Your task to perform on an android device: visit the assistant section in the google photos Image 0: 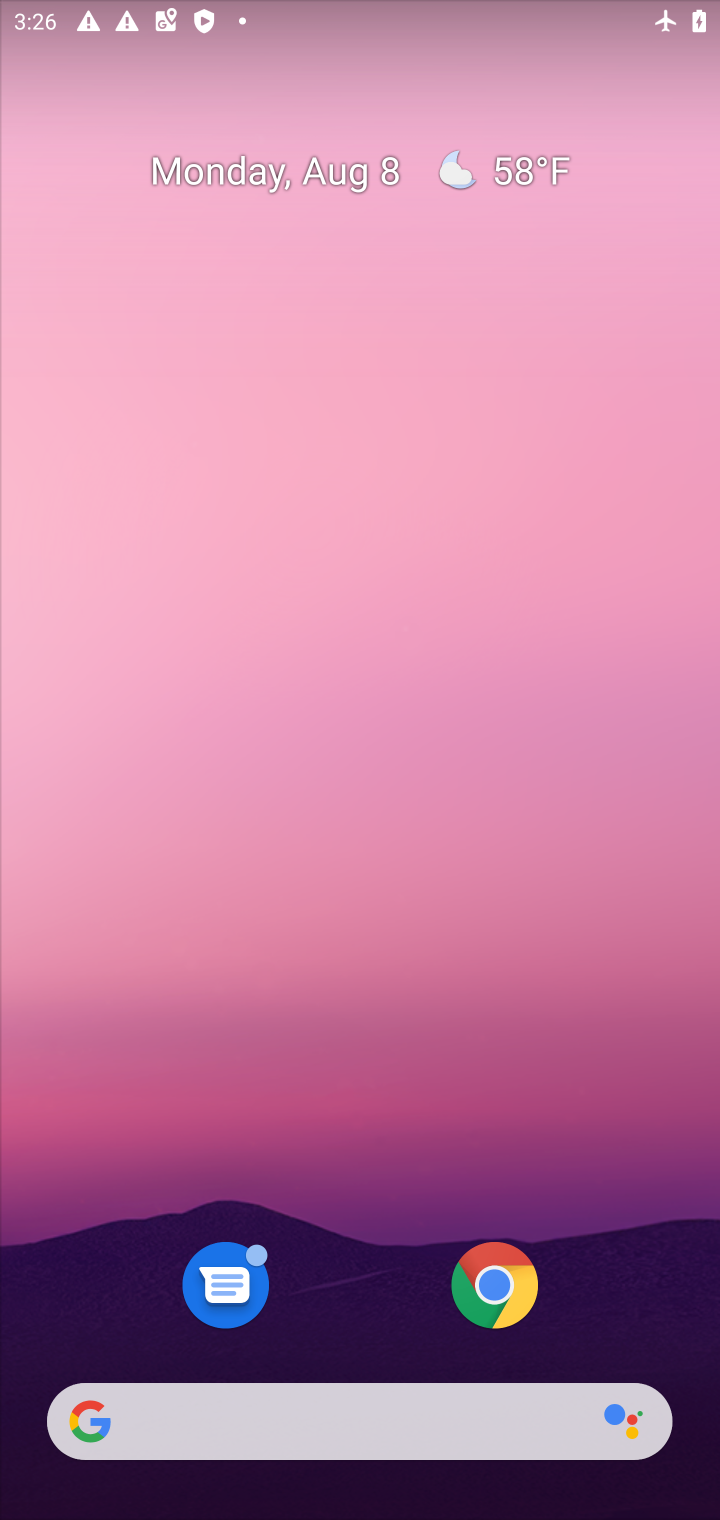
Step 0: drag from (353, 868) to (584, 44)
Your task to perform on an android device: visit the assistant section in the google photos Image 1: 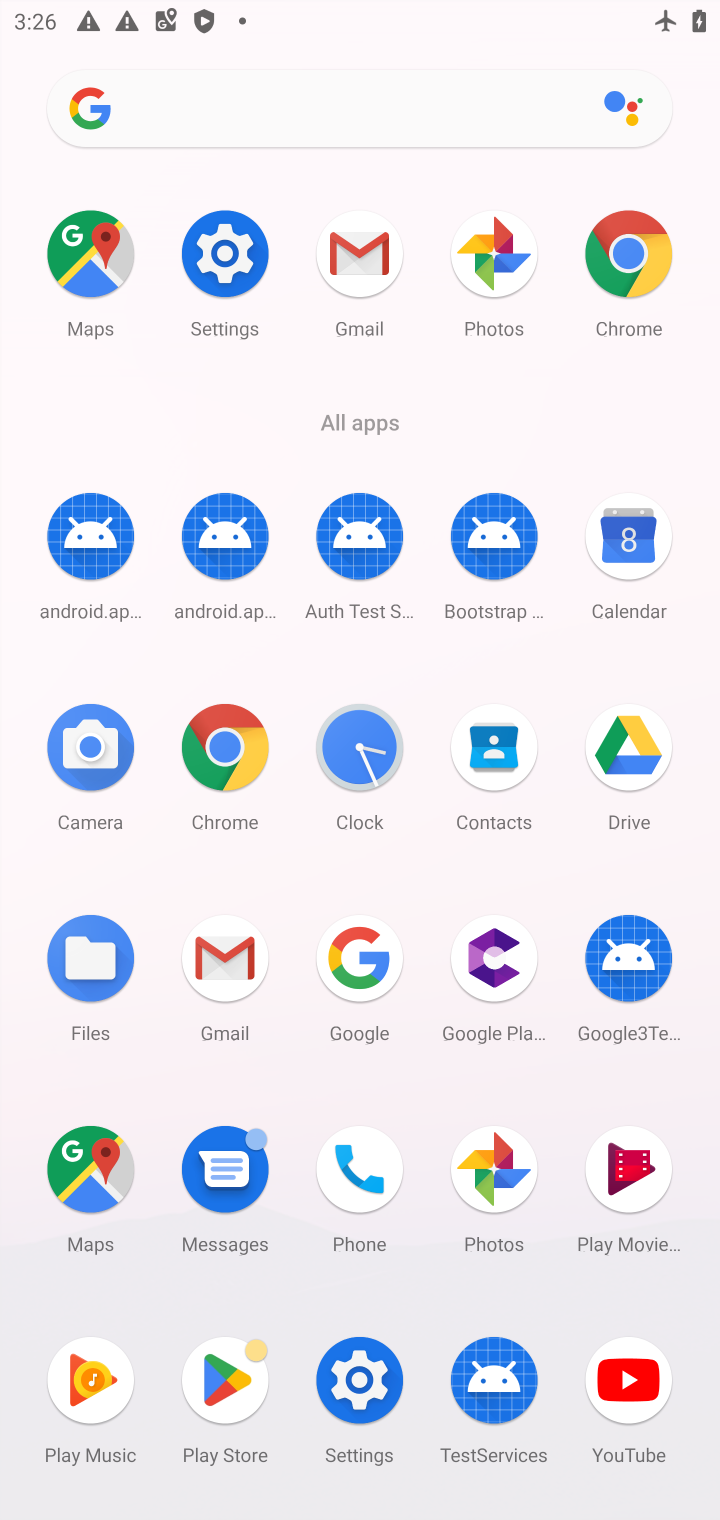
Step 1: click (481, 1175)
Your task to perform on an android device: visit the assistant section in the google photos Image 2: 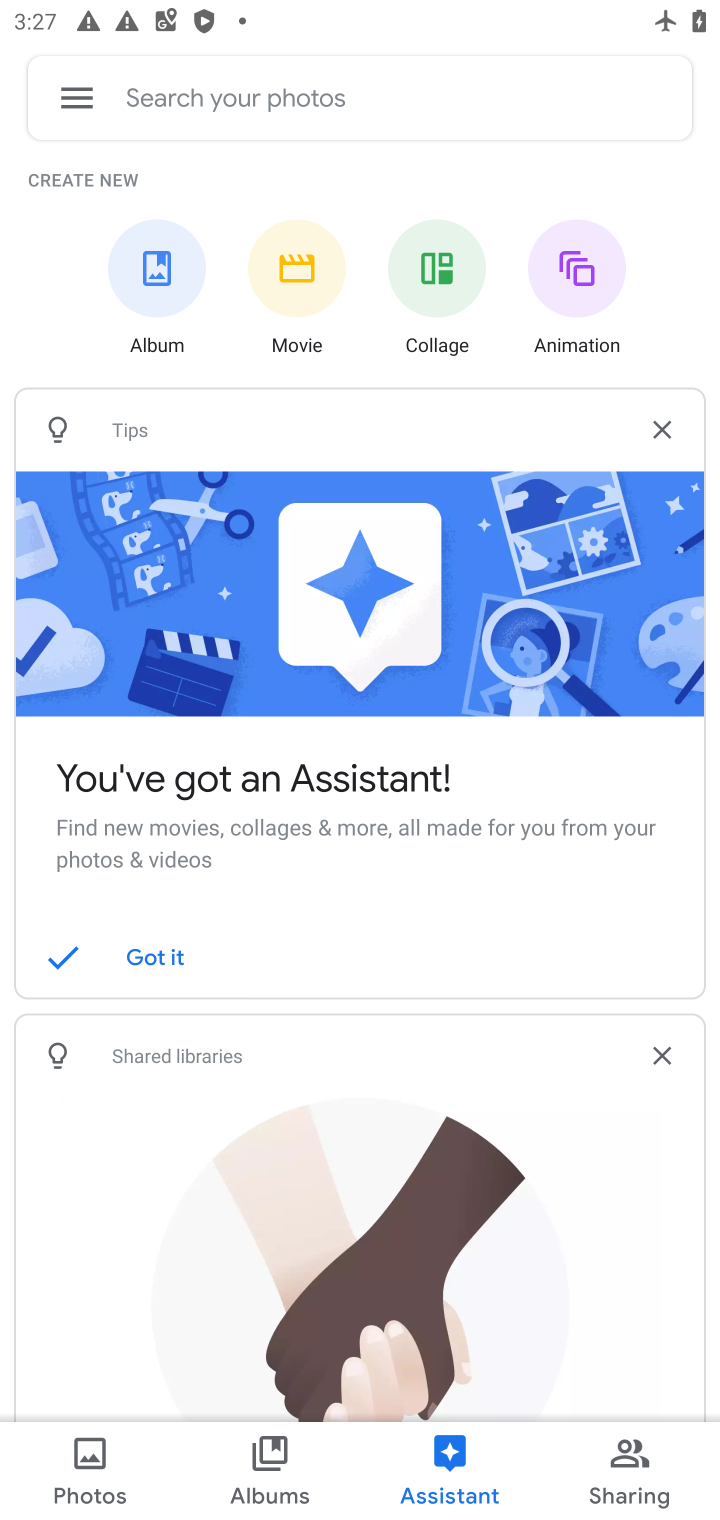
Step 2: task complete